Your task to perform on an android device: turn vacation reply on in the gmail app Image 0: 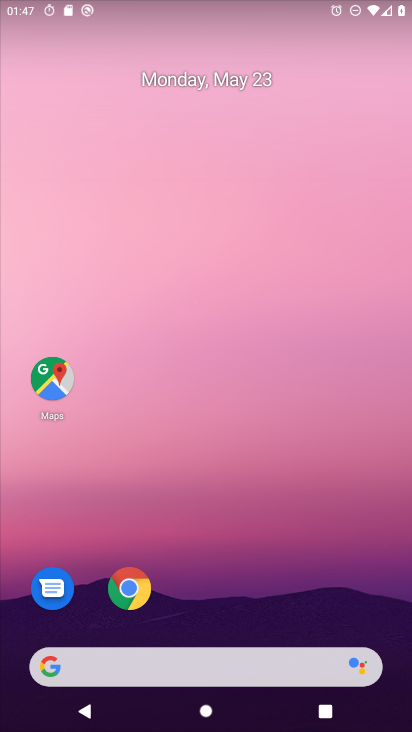
Step 0: drag from (345, 684) to (296, 138)
Your task to perform on an android device: turn vacation reply on in the gmail app Image 1: 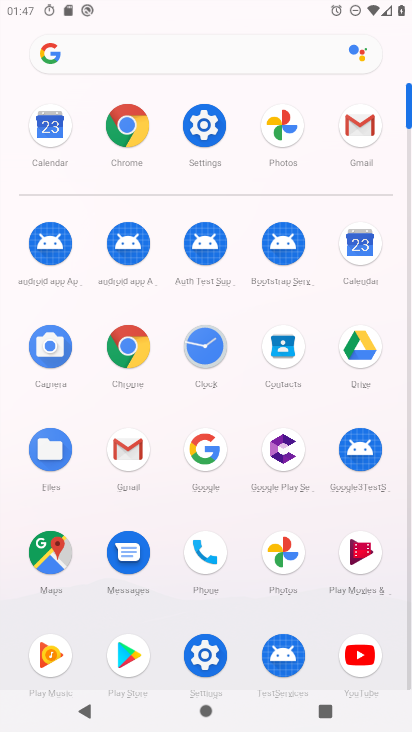
Step 1: click (131, 434)
Your task to perform on an android device: turn vacation reply on in the gmail app Image 2: 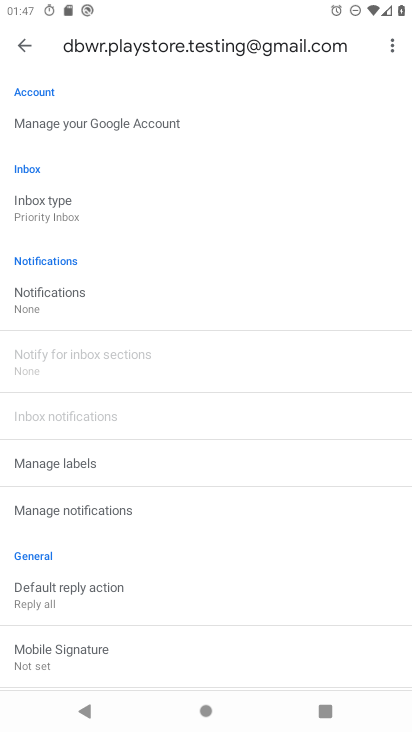
Step 2: drag from (143, 600) to (170, 344)
Your task to perform on an android device: turn vacation reply on in the gmail app Image 3: 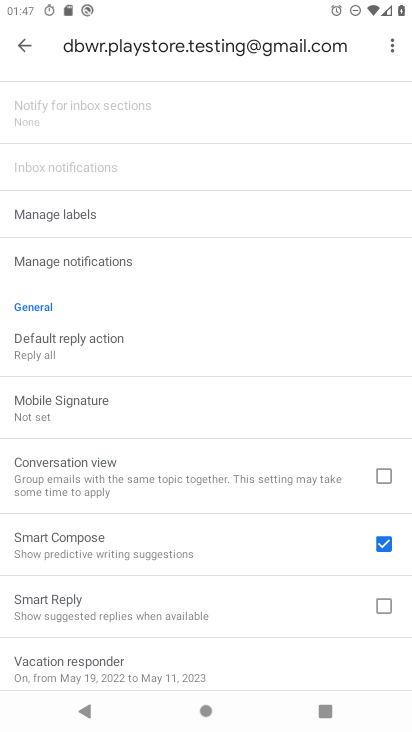
Step 3: drag from (211, 660) to (202, 486)
Your task to perform on an android device: turn vacation reply on in the gmail app Image 4: 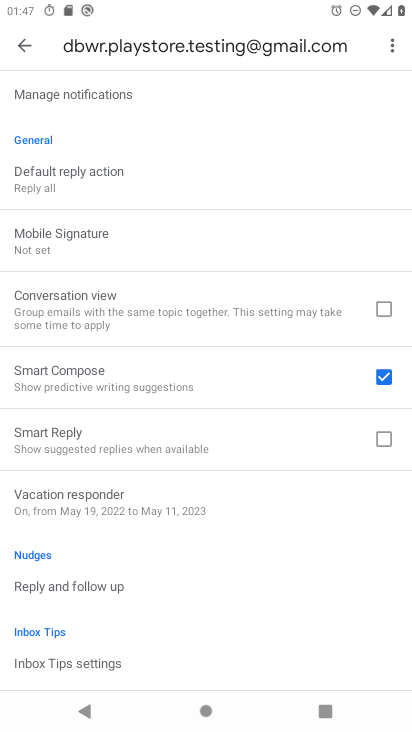
Step 4: click (170, 503)
Your task to perform on an android device: turn vacation reply on in the gmail app Image 5: 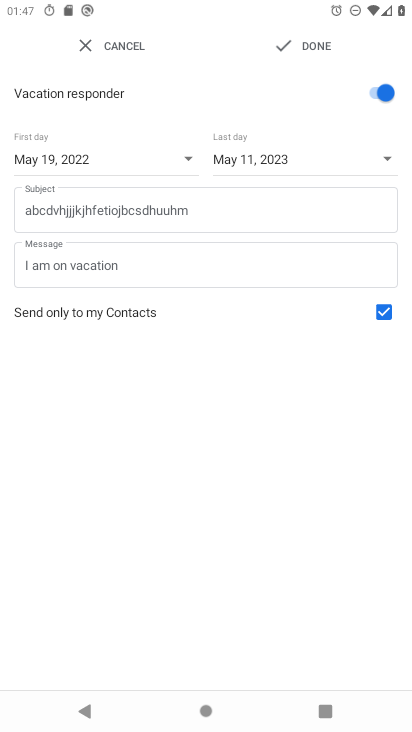
Step 5: task complete